Your task to perform on an android device: delete browsing data in the chrome app Image 0: 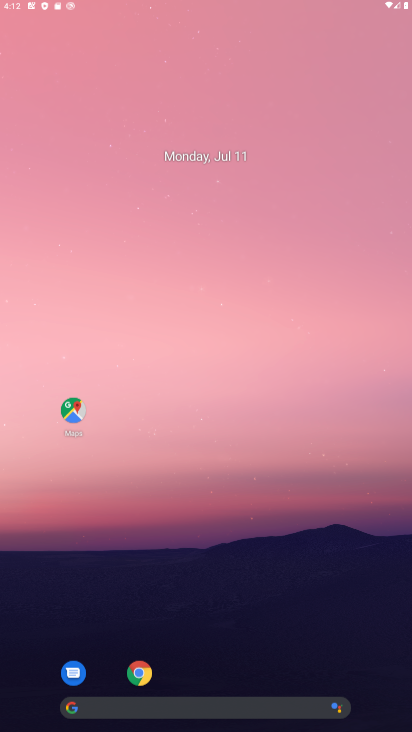
Step 0: click (292, 144)
Your task to perform on an android device: delete browsing data in the chrome app Image 1: 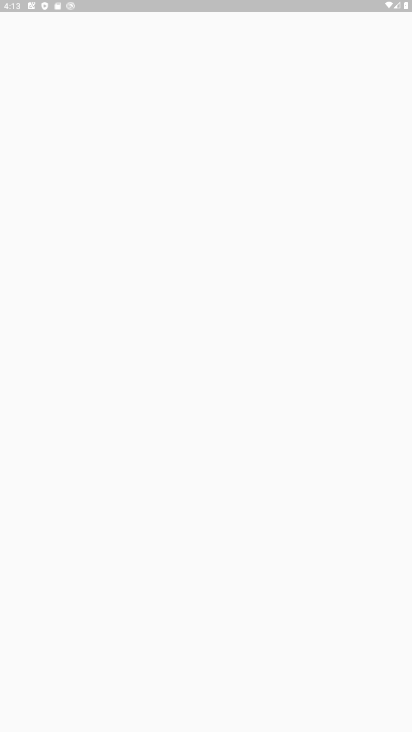
Step 1: press home button
Your task to perform on an android device: delete browsing data in the chrome app Image 2: 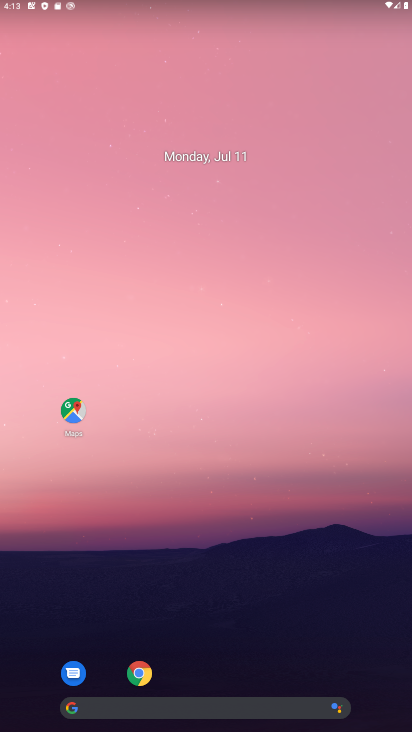
Step 2: click (137, 673)
Your task to perform on an android device: delete browsing data in the chrome app Image 3: 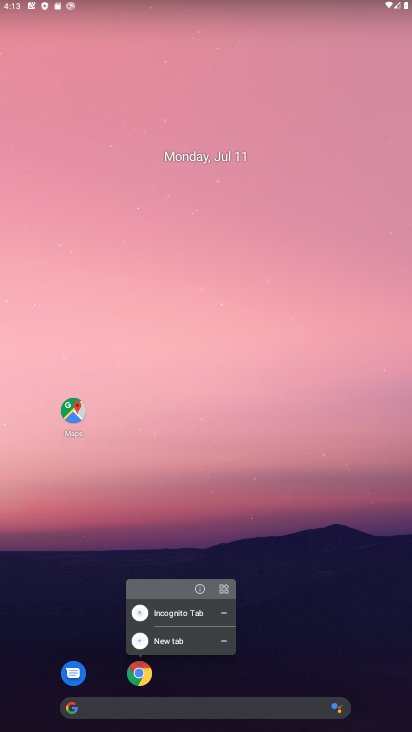
Step 3: click (137, 673)
Your task to perform on an android device: delete browsing data in the chrome app Image 4: 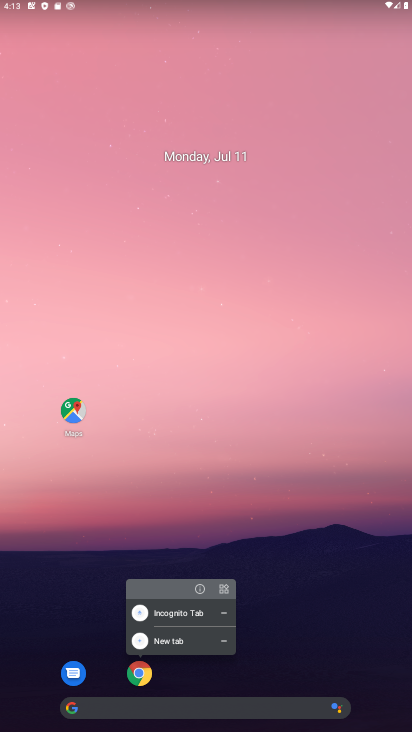
Step 4: click (137, 673)
Your task to perform on an android device: delete browsing data in the chrome app Image 5: 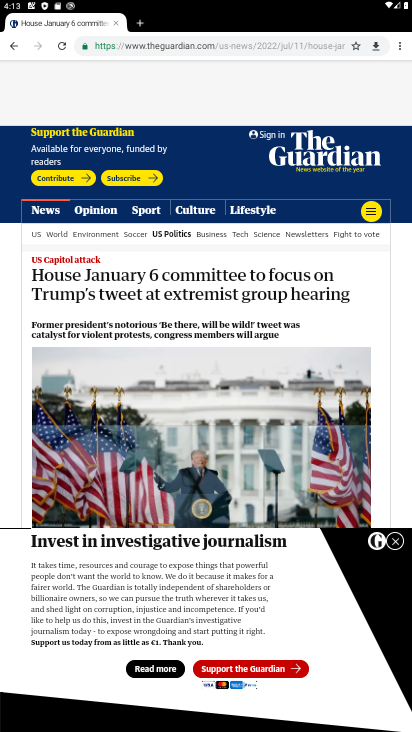
Step 5: click (400, 42)
Your task to perform on an android device: delete browsing data in the chrome app Image 6: 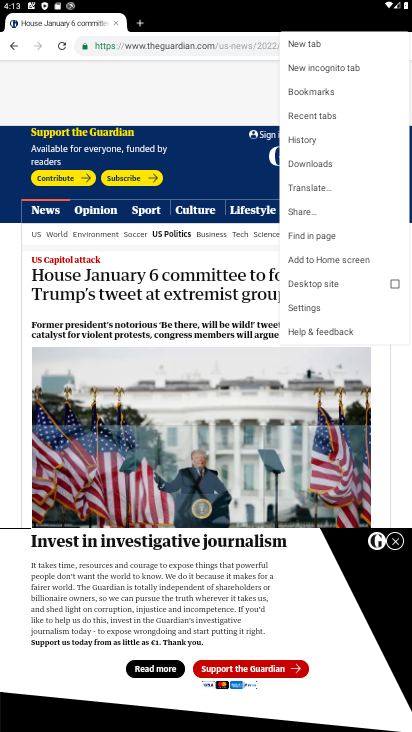
Step 6: click (315, 139)
Your task to perform on an android device: delete browsing data in the chrome app Image 7: 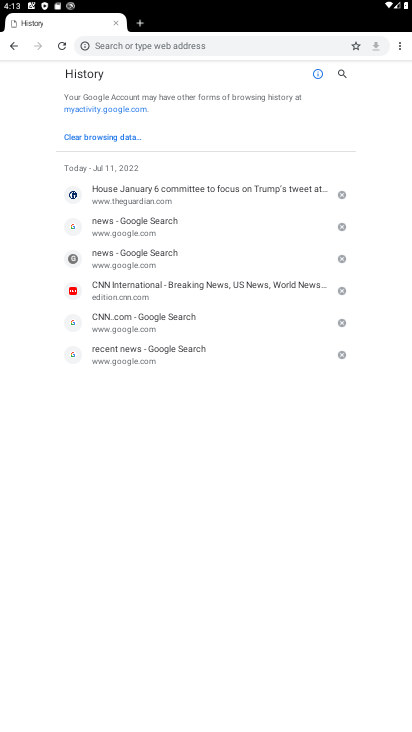
Step 7: click (118, 140)
Your task to perform on an android device: delete browsing data in the chrome app Image 8: 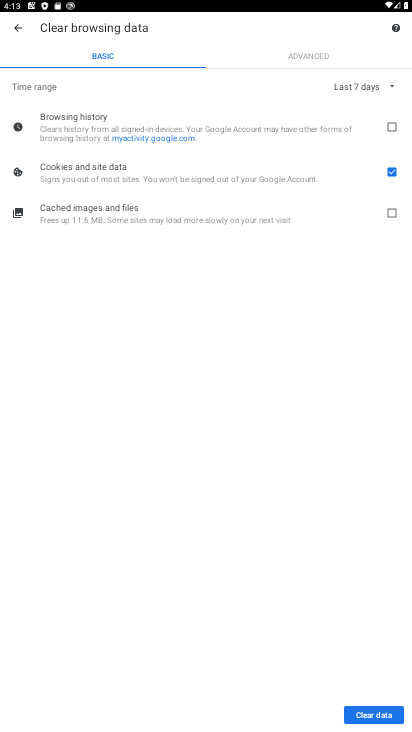
Step 8: click (390, 126)
Your task to perform on an android device: delete browsing data in the chrome app Image 9: 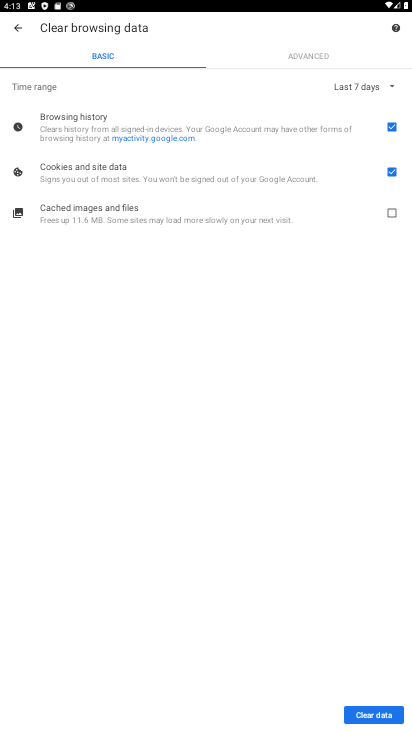
Step 9: click (391, 170)
Your task to perform on an android device: delete browsing data in the chrome app Image 10: 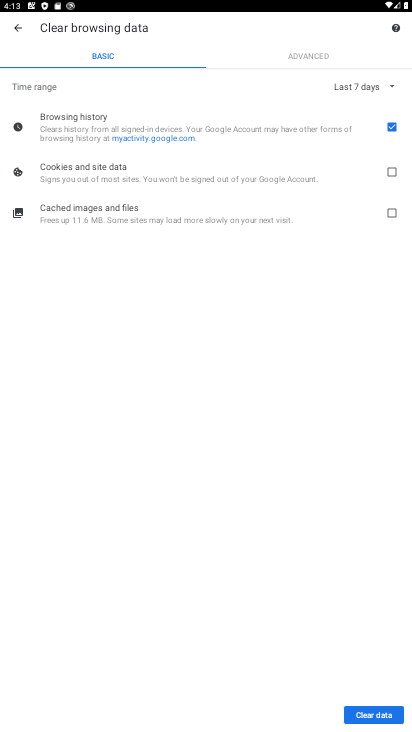
Step 10: click (394, 212)
Your task to perform on an android device: delete browsing data in the chrome app Image 11: 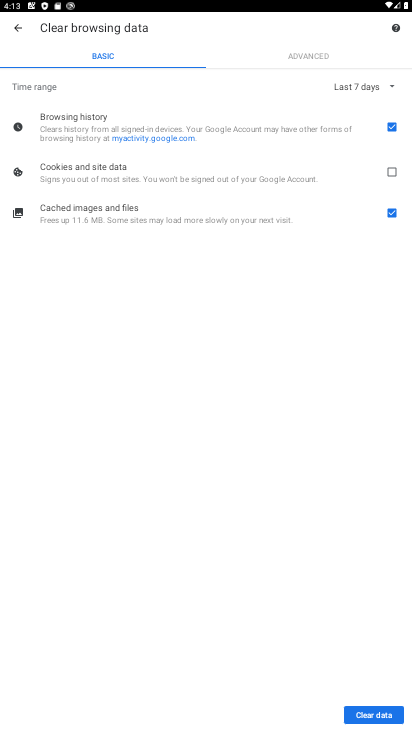
Step 11: click (393, 168)
Your task to perform on an android device: delete browsing data in the chrome app Image 12: 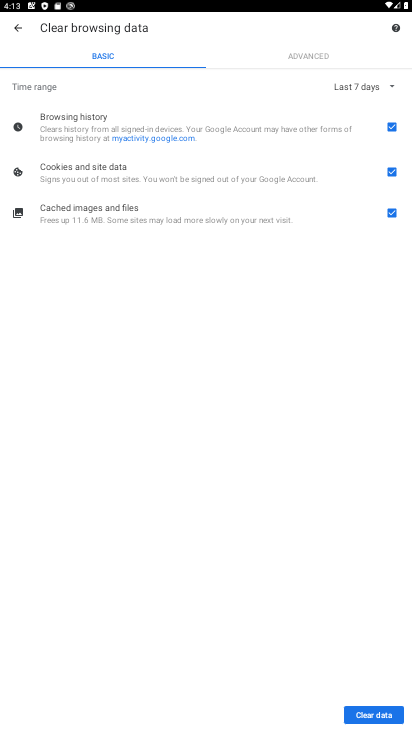
Step 12: click (368, 708)
Your task to perform on an android device: delete browsing data in the chrome app Image 13: 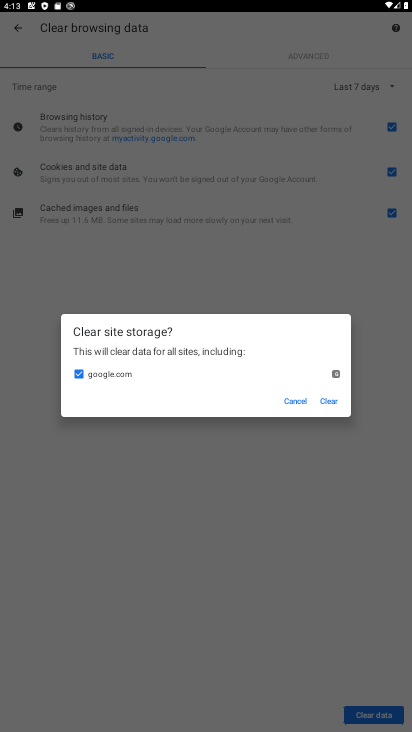
Step 13: click (328, 401)
Your task to perform on an android device: delete browsing data in the chrome app Image 14: 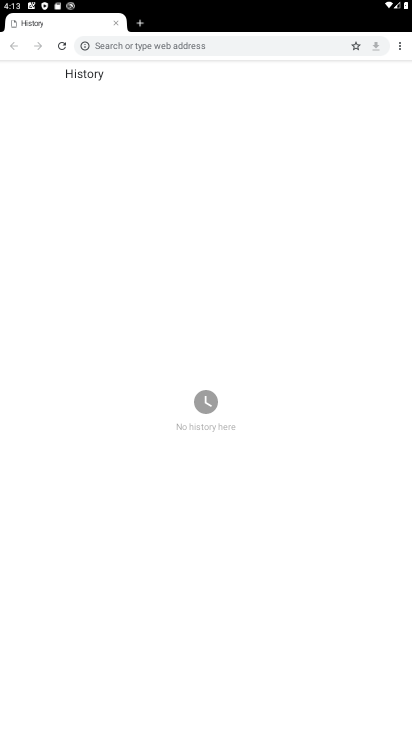
Step 14: task complete